Your task to perform on an android device: Go to CNN.com Image 0: 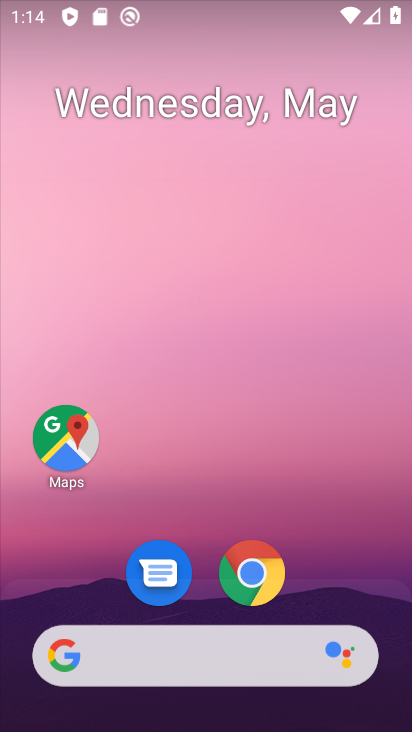
Step 0: click (191, 673)
Your task to perform on an android device: Go to CNN.com Image 1: 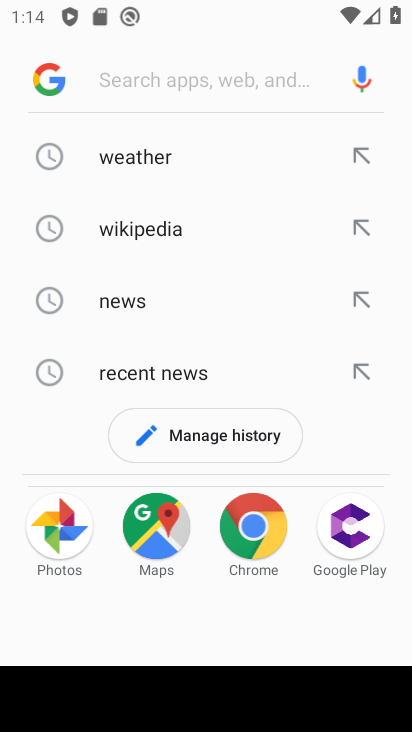
Step 1: type "cnn.com"
Your task to perform on an android device: Go to CNN.com Image 2: 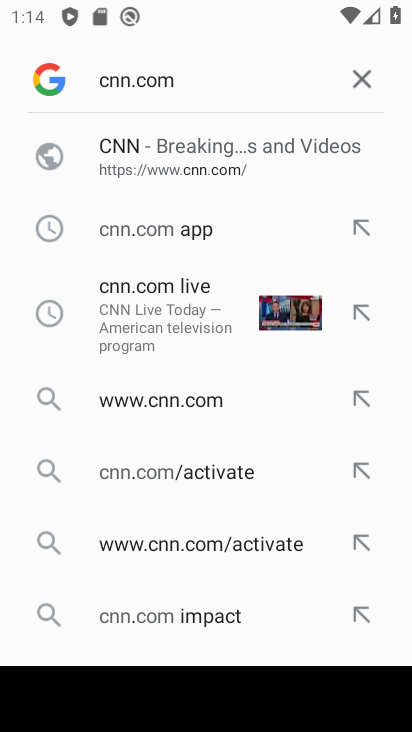
Step 2: click (165, 171)
Your task to perform on an android device: Go to CNN.com Image 3: 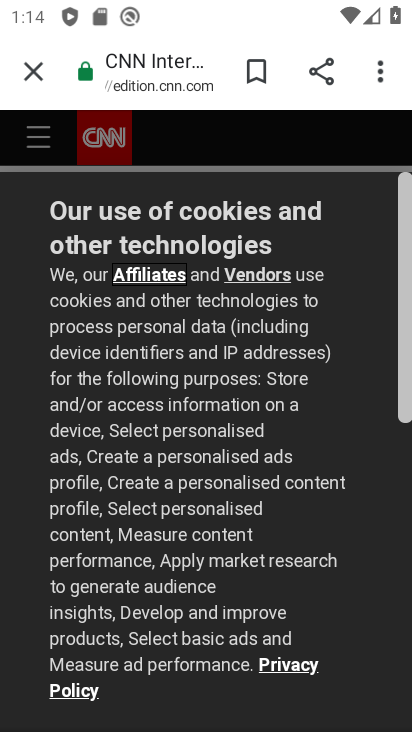
Step 3: task complete